Your task to perform on an android device: empty trash in google photos Image 0: 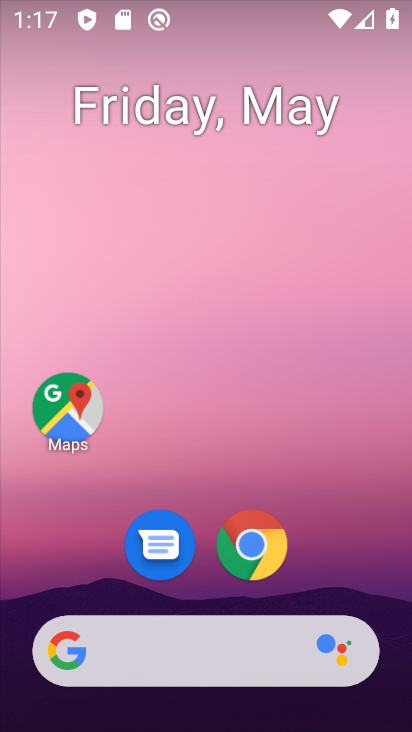
Step 0: drag from (338, 510) to (331, 21)
Your task to perform on an android device: empty trash in google photos Image 1: 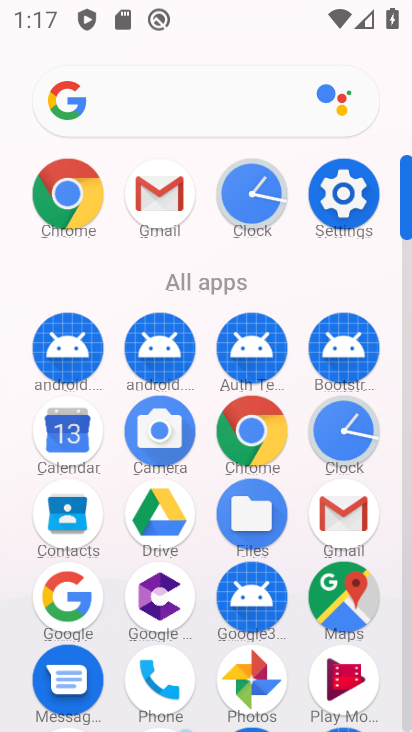
Step 1: click (255, 657)
Your task to perform on an android device: empty trash in google photos Image 2: 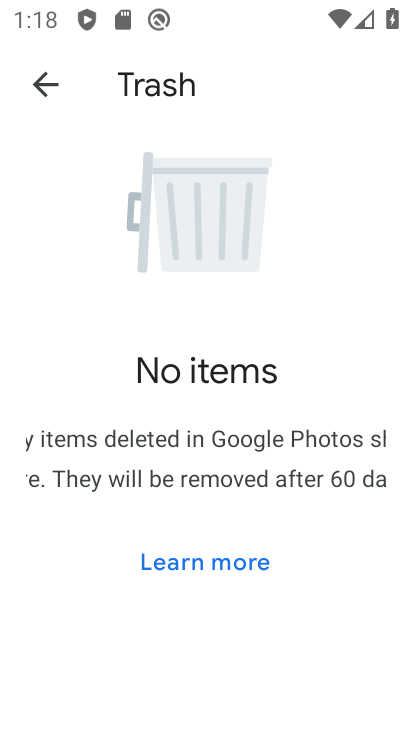
Step 2: task complete